Your task to perform on an android device: Go to eBay Image 0: 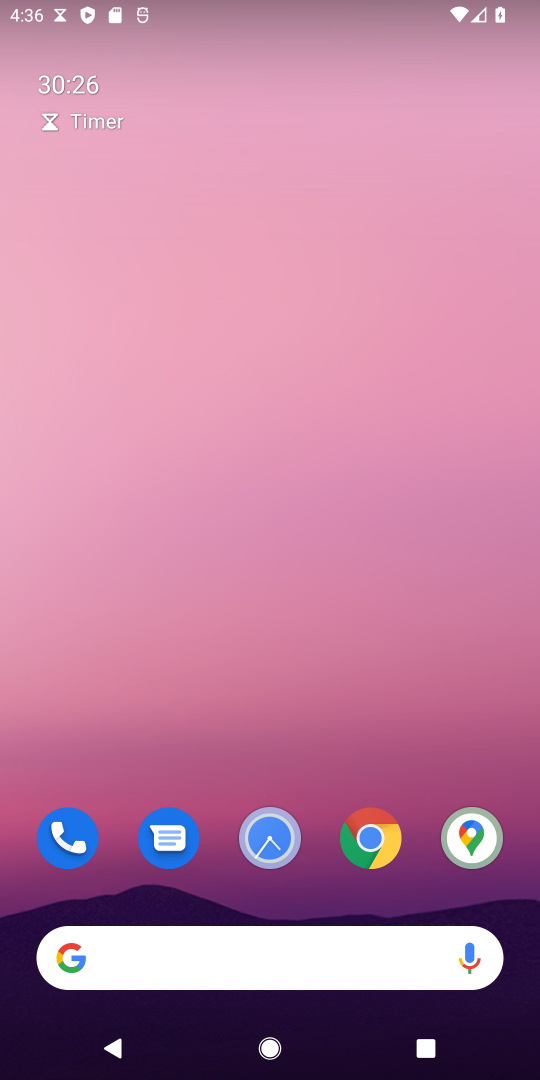
Step 0: click (374, 840)
Your task to perform on an android device: Go to eBay Image 1: 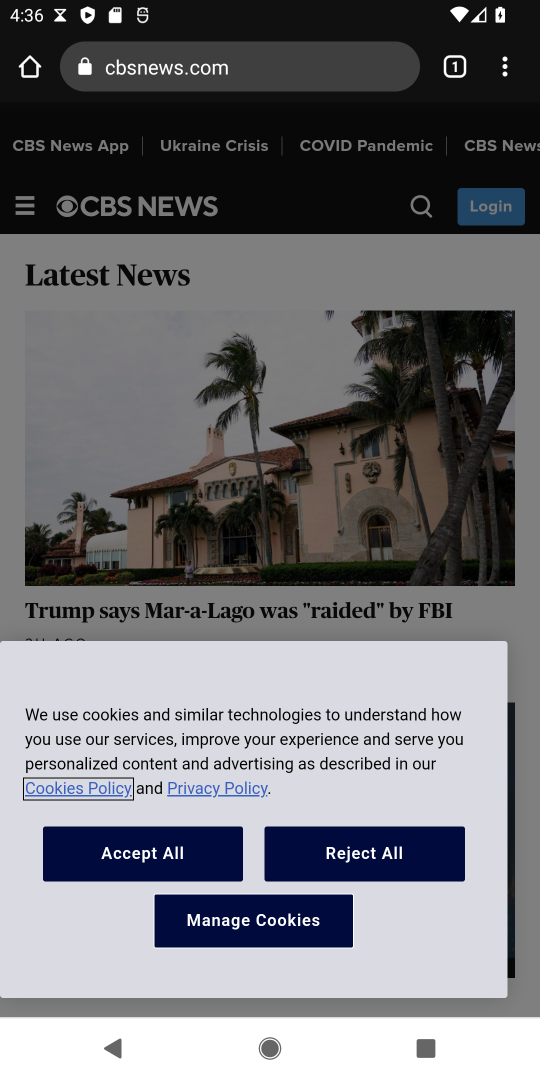
Step 1: click (461, 76)
Your task to perform on an android device: Go to eBay Image 2: 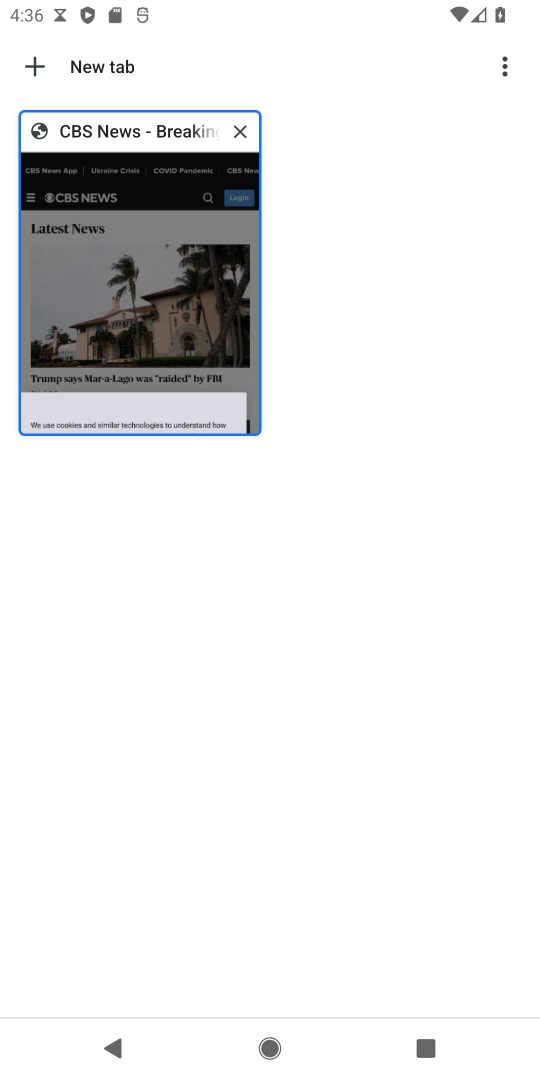
Step 2: click (114, 69)
Your task to perform on an android device: Go to eBay Image 3: 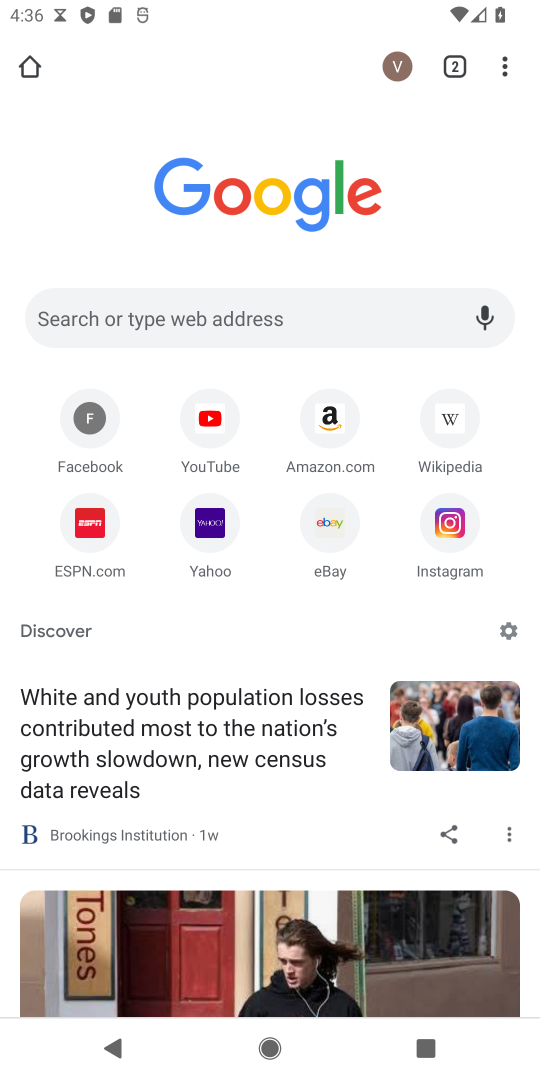
Step 3: click (338, 553)
Your task to perform on an android device: Go to eBay Image 4: 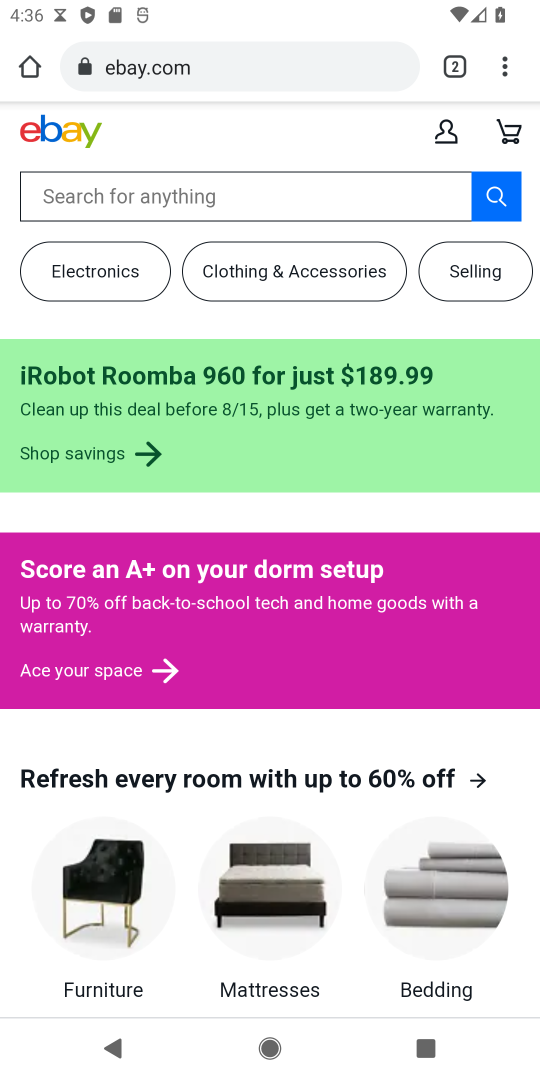
Step 4: task complete